Your task to perform on an android device: stop showing notifications on the lock screen Image 0: 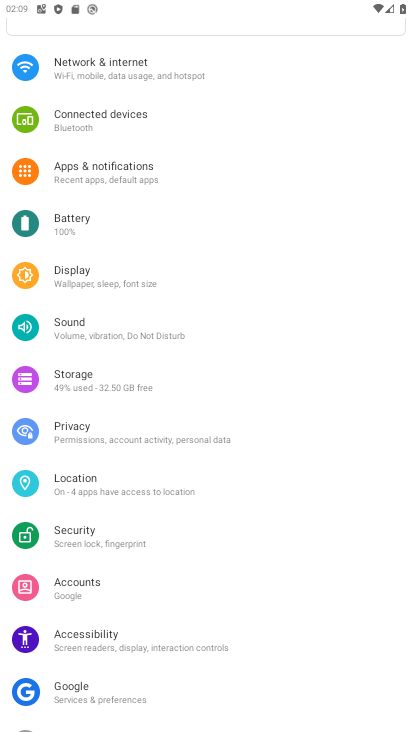
Step 0: press home button
Your task to perform on an android device: stop showing notifications on the lock screen Image 1: 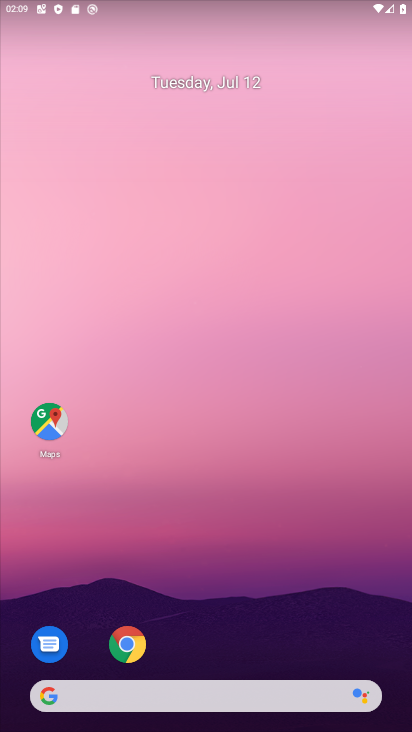
Step 1: drag from (203, 667) to (138, 255)
Your task to perform on an android device: stop showing notifications on the lock screen Image 2: 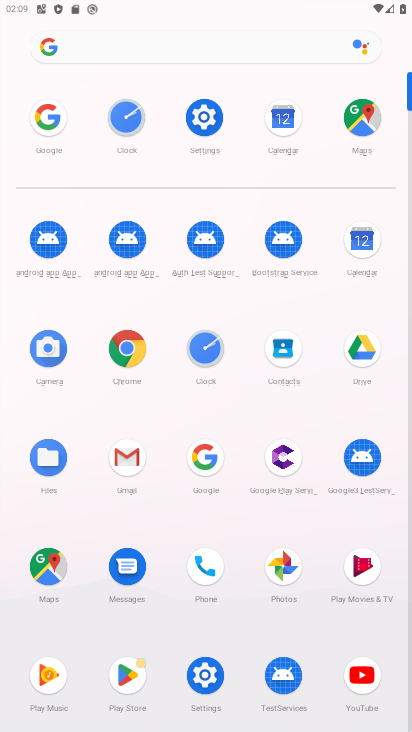
Step 2: click (189, 118)
Your task to perform on an android device: stop showing notifications on the lock screen Image 3: 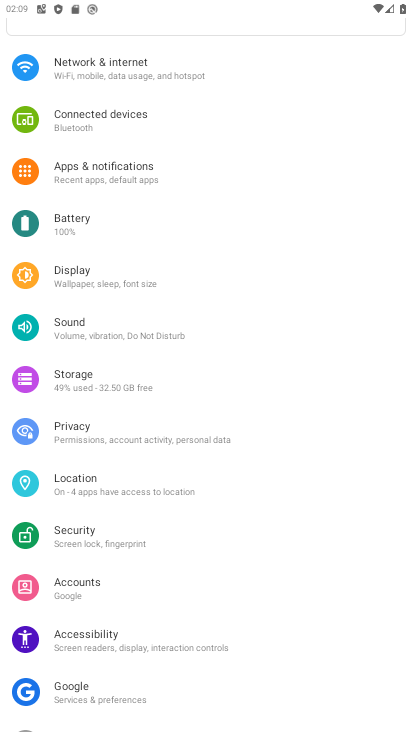
Step 3: click (158, 178)
Your task to perform on an android device: stop showing notifications on the lock screen Image 4: 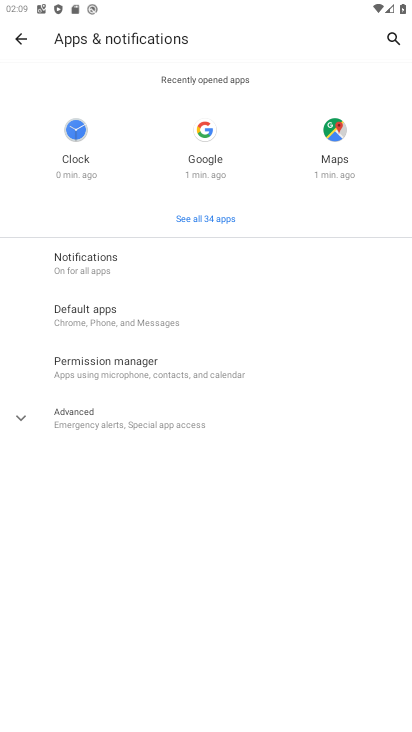
Step 4: click (104, 274)
Your task to perform on an android device: stop showing notifications on the lock screen Image 5: 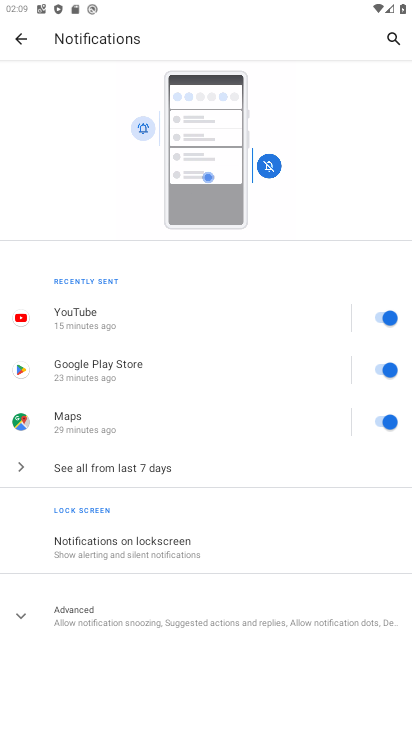
Step 5: click (140, 545)
Your task to perform on an android device: stop showing notifications on the lock screen Image 6: 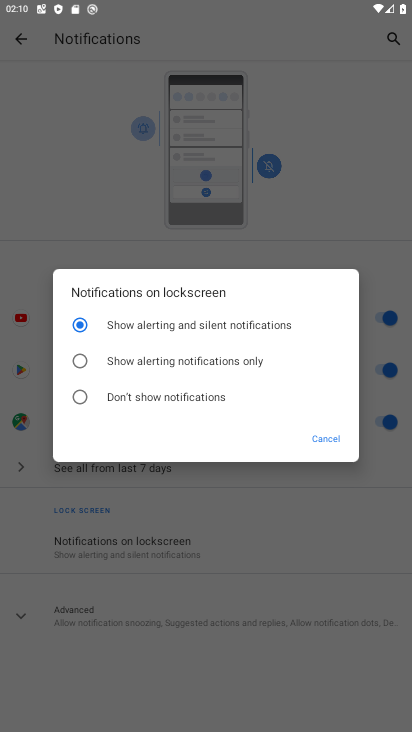
Step 6: click (113, 407)
Your task to perform on an android device: stop showing notifications on the lock screen Image 7: 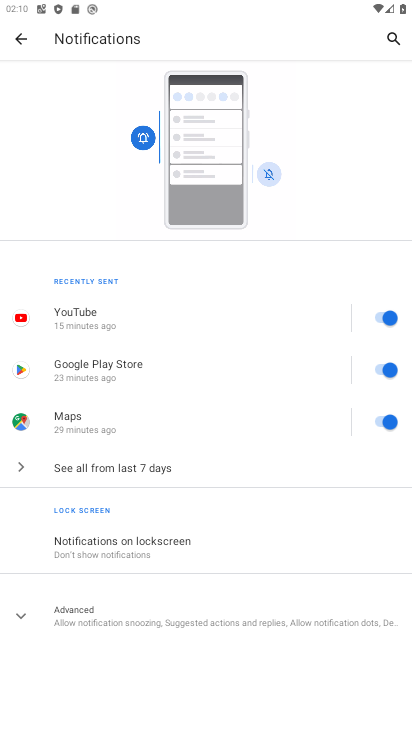
Step 7: task complete